Your task to perform on an android device: change text size in settings app Image 0: 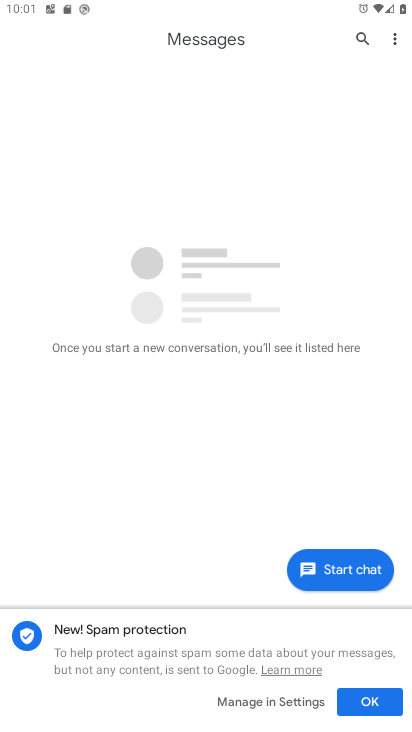
Step 0: task complete